Your task to perform on an android device: Go to accessibility settings Image 0: 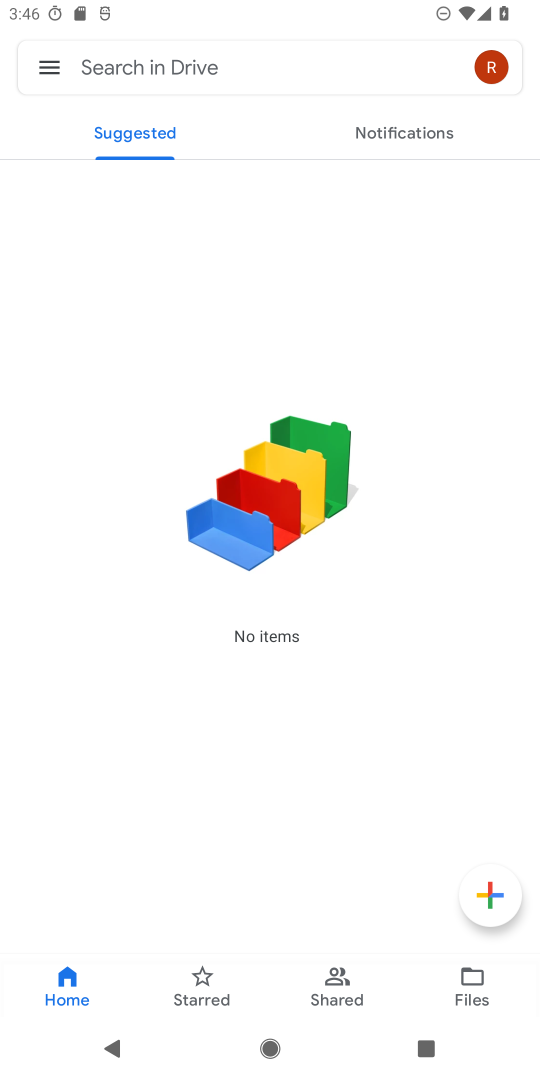
Step 0: press home button
Your task to perform on an android device: Go to accessibility settings Image 1: 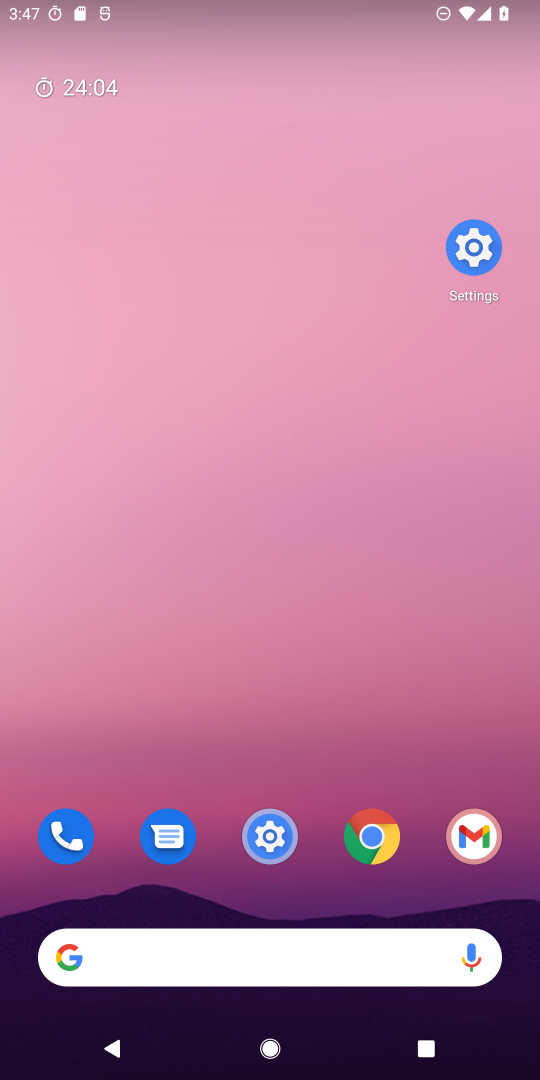
Step 1: click (278, 854)
Your task to perform on an android device: Go to accessibility settings Image 2: 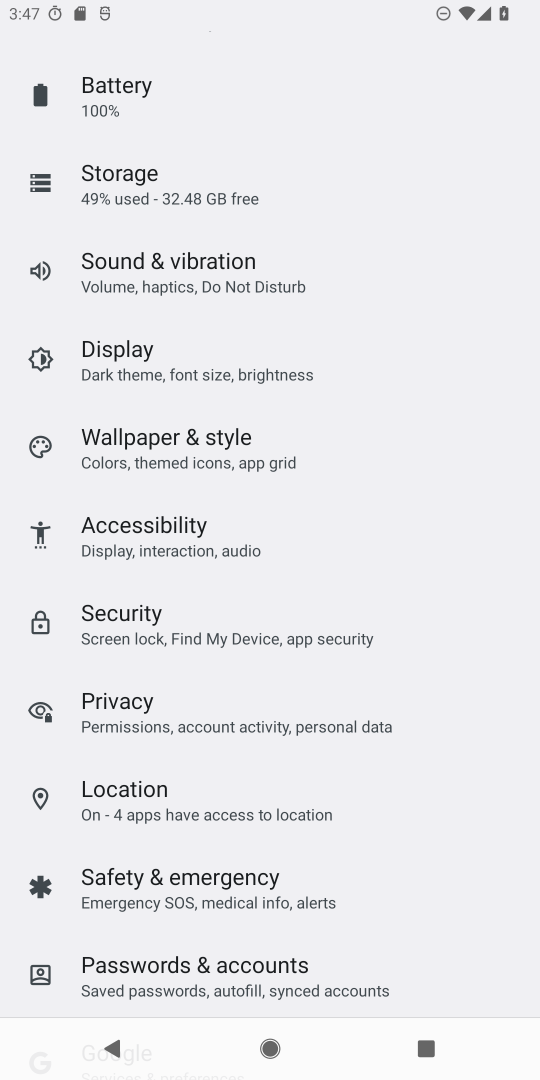
Step 2: click (189, 540)
Your task to perform on an android device: Go to accessibility settings Image 3: 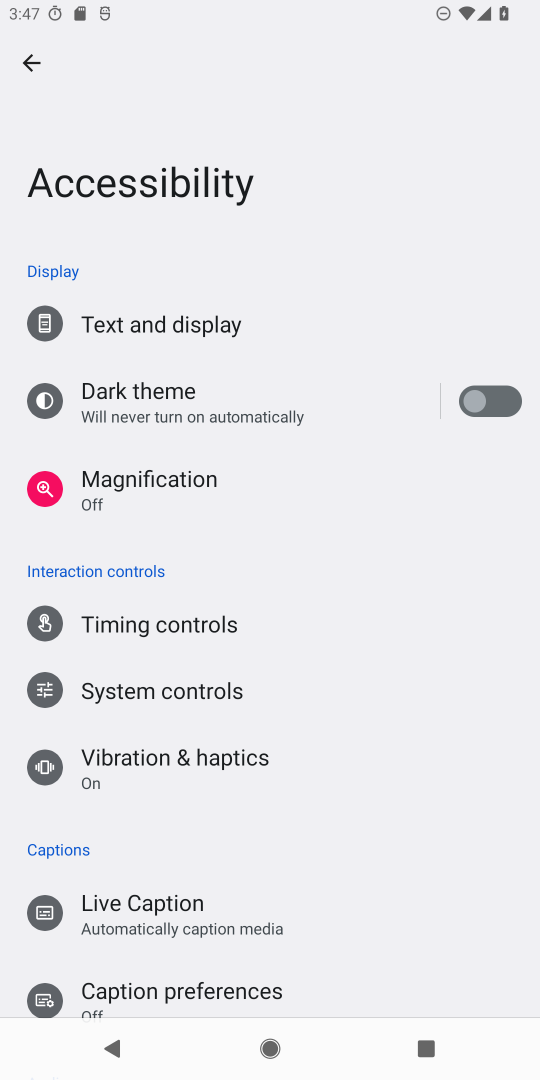
Step 3: task complete